Your task to perform on an android device: show emergency info Image 0: 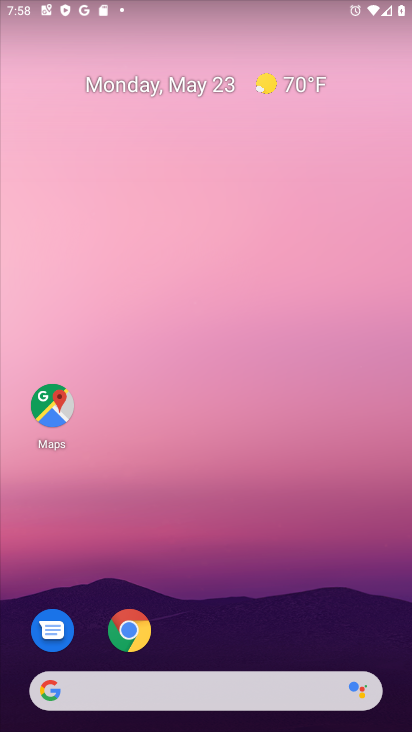
Step 0: drag from (295, 586) to (277, 110)
Your task to perform on an android device: show emergency info Image 1: 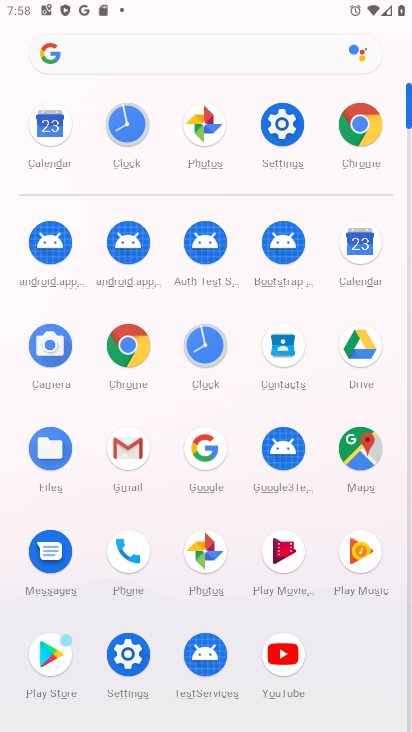
Step 1: click (270, 125)
Your task to perform on an android device: show emergency info Image 2: 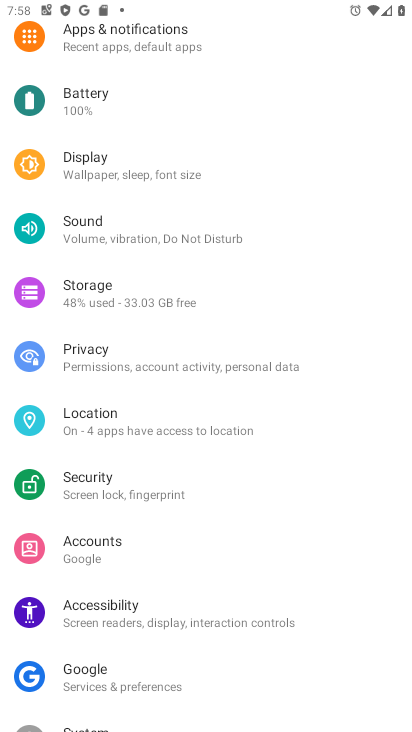
Step 2: drag from (212, 628) to (265, 117)
Your task to perform on an android device: show emergency info Image 3: 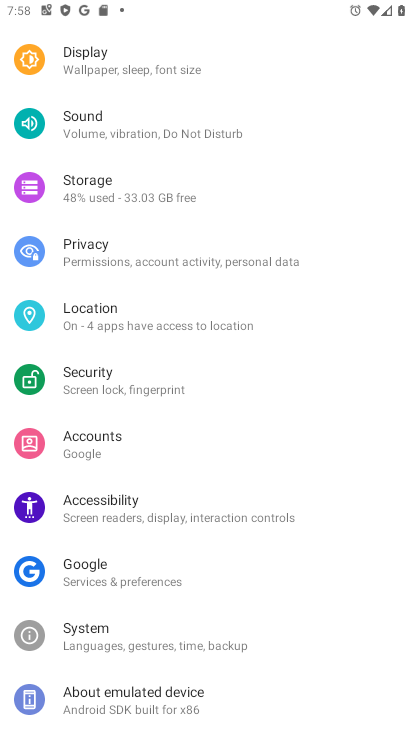
Step 3: click (147, 702)
Your task to perform on an android device: show emergency info Image 4: 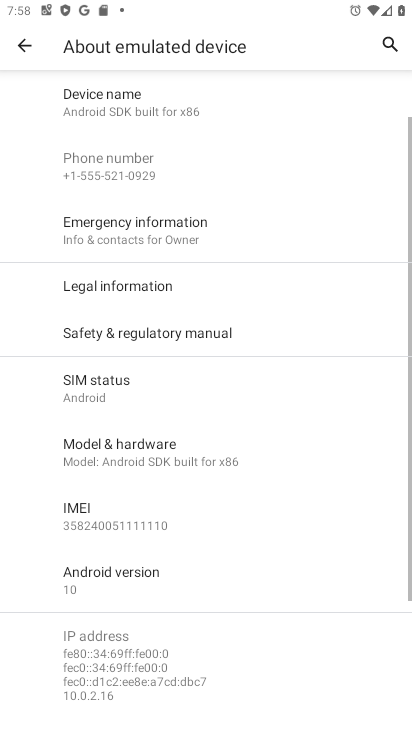
Step 4: click (146, 222)
Your task to perform on an android device: show emergency info Image 5: 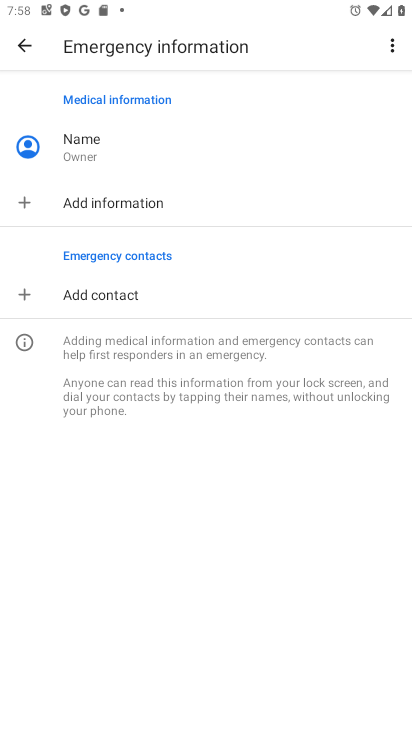
Step 5: task complete